Your task to perform on an android device: turn off airplane mode Image 0: 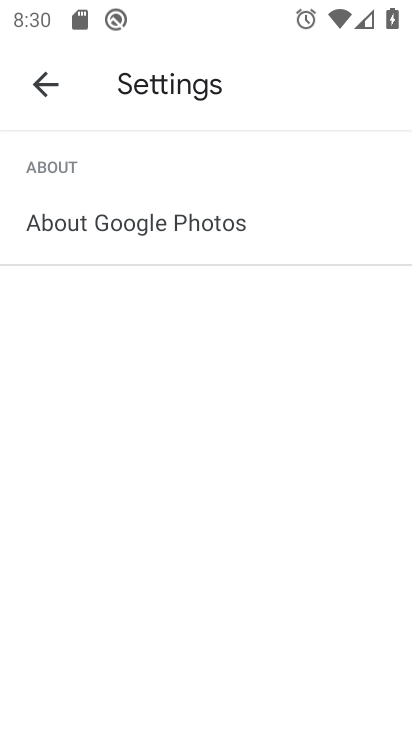
Step 0: press home button
Your task to perform on an android device: turn off airplane mode Image 1: 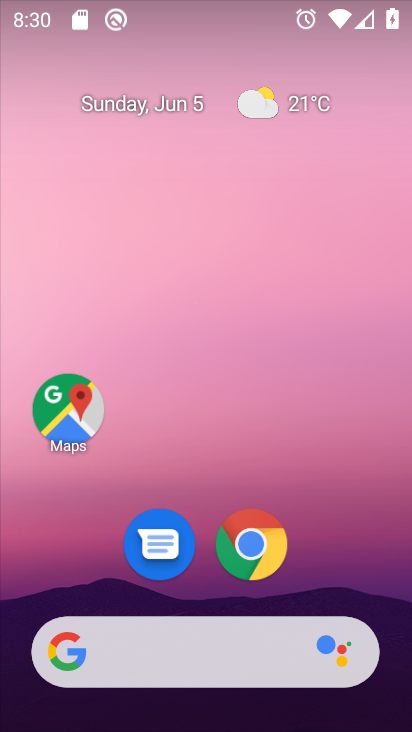
Step 1: drag from (400, 716) to (307, 35)
Your task to perform on an android device: turn off airplane mode Image 2: 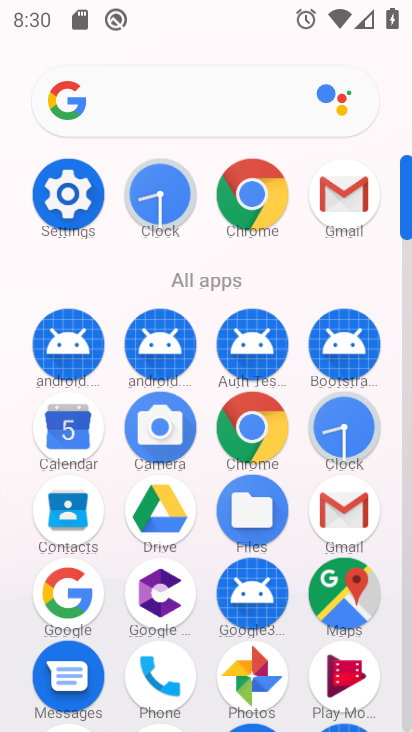
Step 2: click (78, 207)
Your task to perform on an android device: turn off airplane mode Image 3: 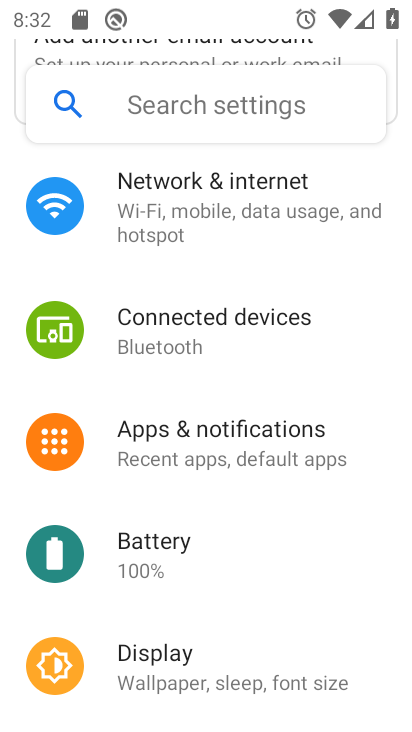
Step 3: click (205, 203)
Your task to perform on an android device: turn off airplane mode Image 4: 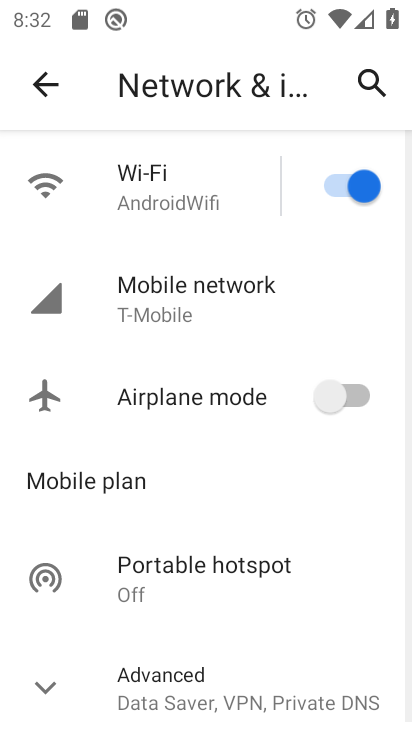
Step 4: click (168, 211)
Your task to perform on an android device: turn off airplane mode Image 5: 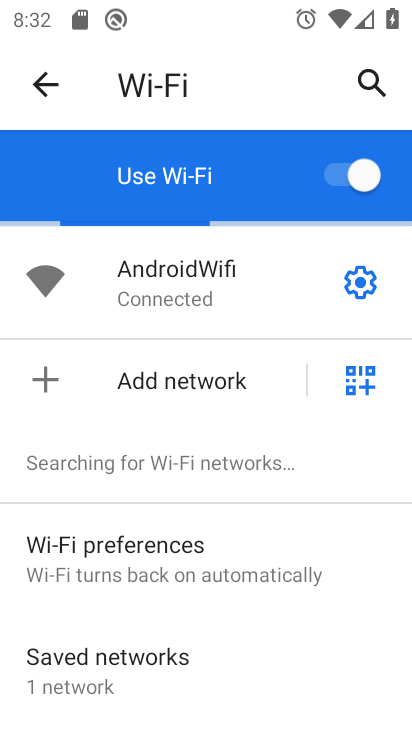
Step 5: click (36, 79)
Your task to perform on an android device: turn off airplane mode Image 6: 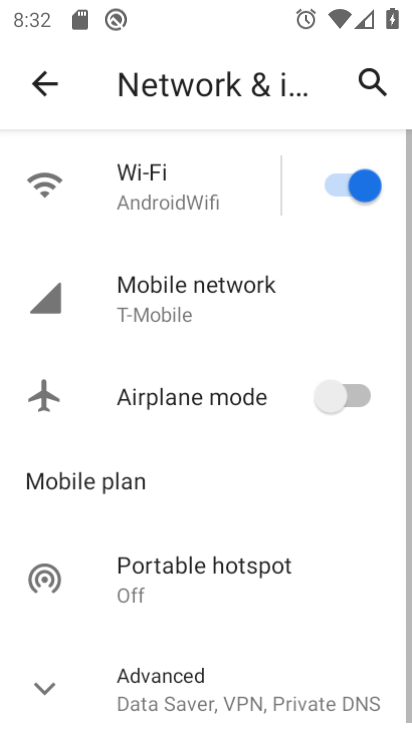
Step 6: task complete